Your task to perform on an android device: See recent photos Image 0: 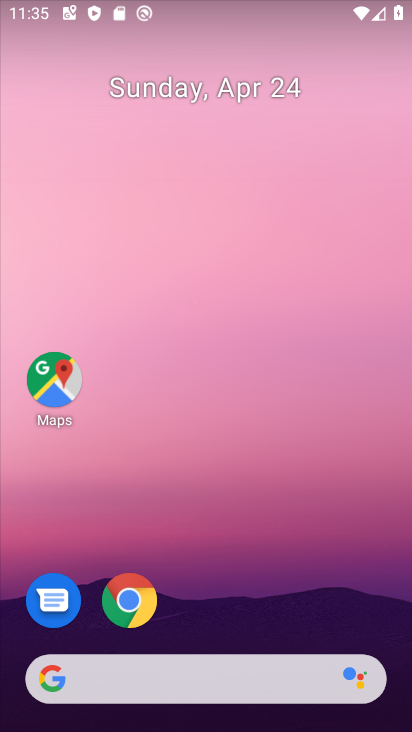
Step 0: drag from (271, 693) to (272, 270)
Your task to perform on an android device: See recent photos Image 1: 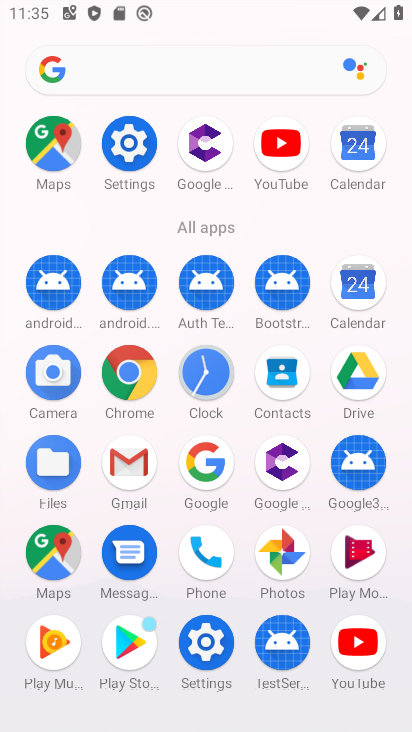
Step 1: click (279, 555)
Your task to perform on an android device: See recent photos Image 2: 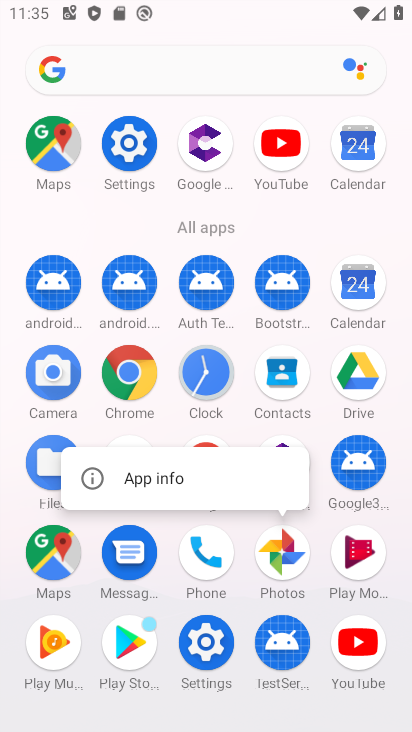
Step 2: click (279, 550)
Your task to perform on an android device: See recent photos Image 3: 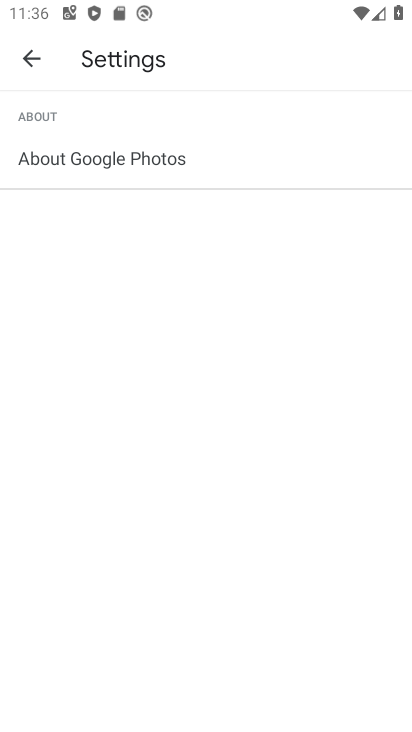
Step 3: click (22, 64)
Your task to perform on an android device: See recent photos Image 4: 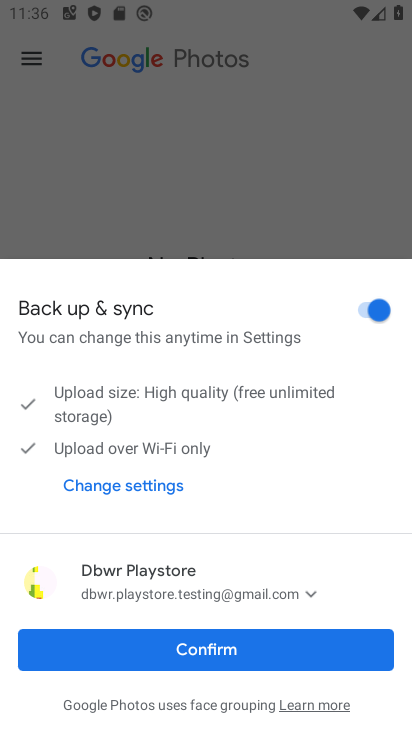
Step 4: click (284, 656)
Your task to perform on an android device: See recent photos Image 5: 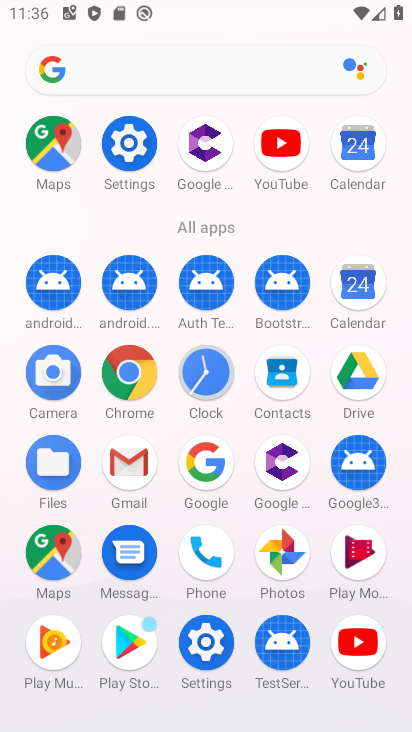
Step 5: click (283, 567)
Your task to perform on an android device: See recent photos Image 6: 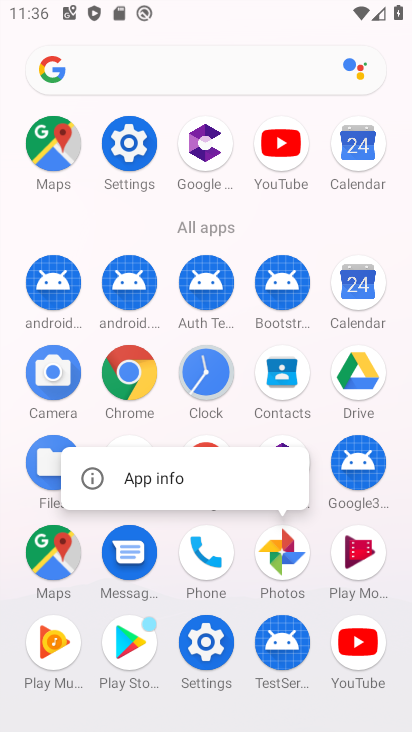
Step 6: click (284, 567)
Your task to perform on an android device: See recent photos Image 7: 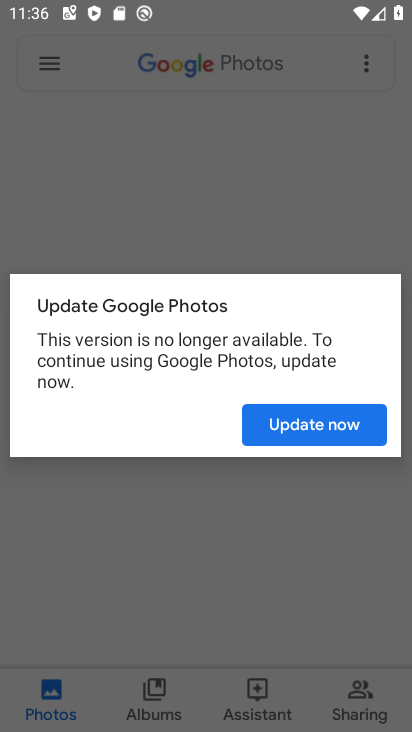
Step 7: click (330, 435)
Your task to perform on an android device: See recent photos Image 8: 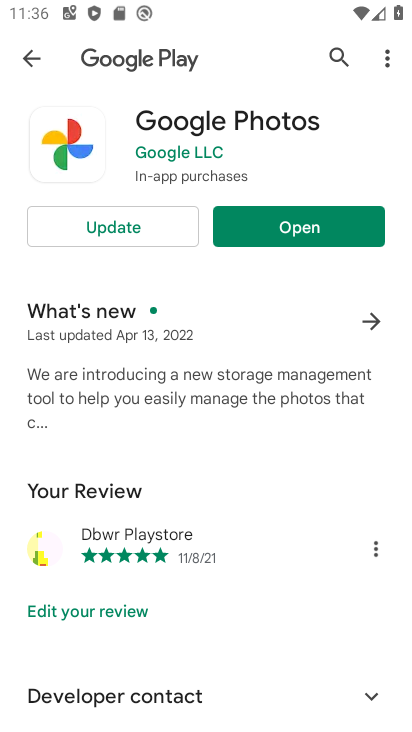
Step 8: click (320, 235)
Your task to perform on an android device: See recent photos Image 9: 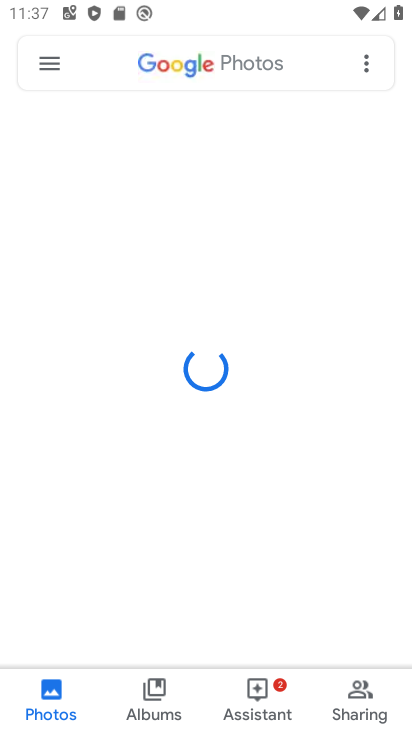
Step 9: click (158, 710)
Your task to perform on an android device: See recent photos Image 10: 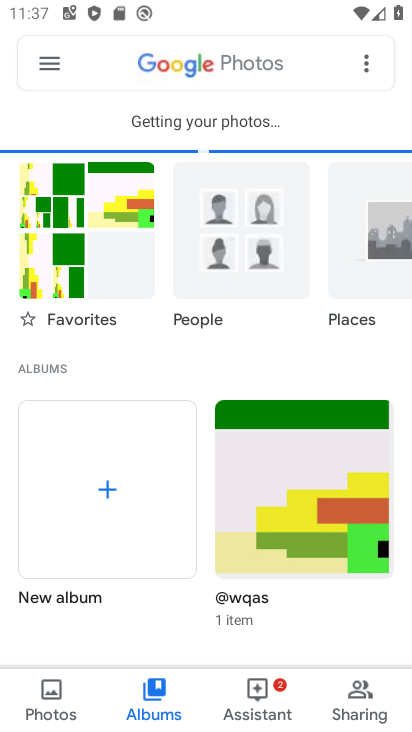
Step 10: task complete